Your task to perform on an android device: Empty the shopping cart on amazon.com. Image 0: 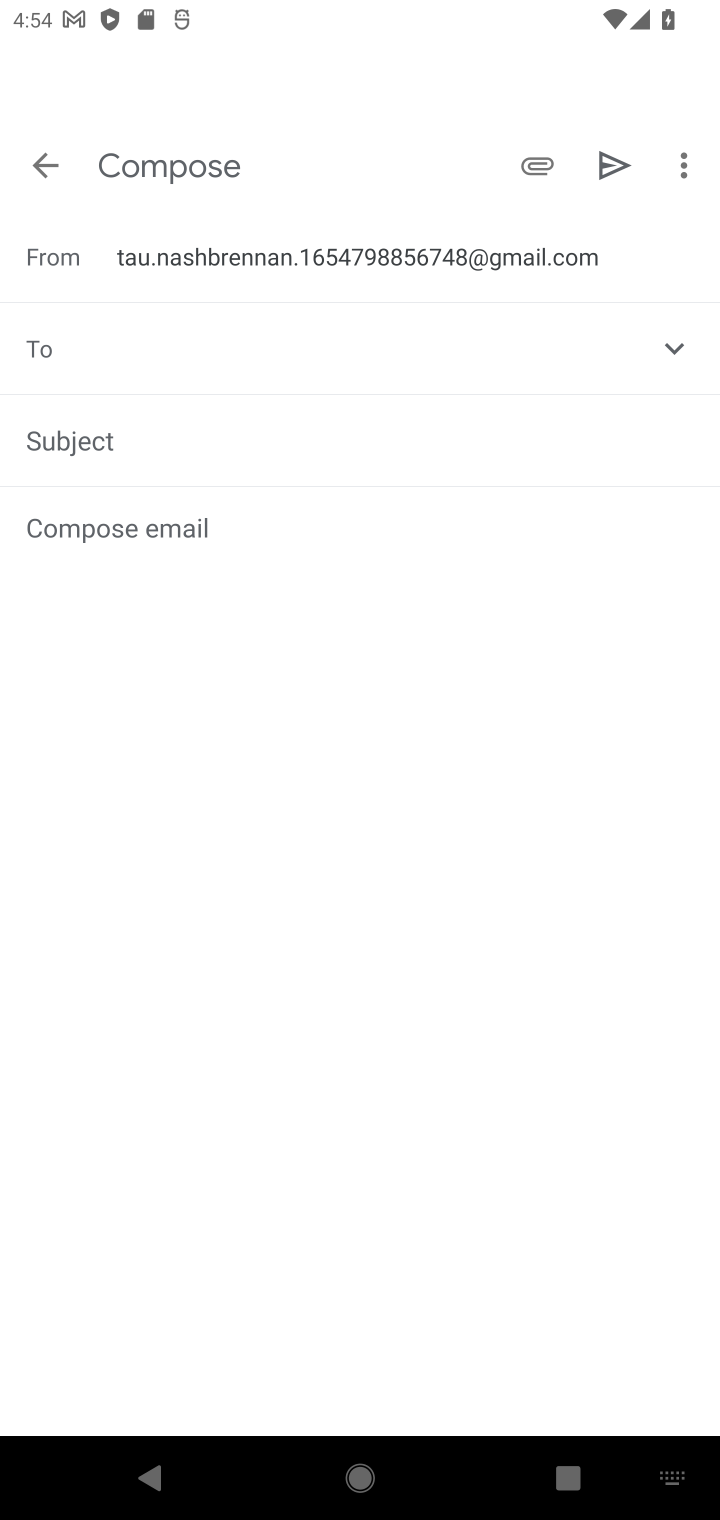
Step 0: press home button
Your task to perform on an android device: Empty the shopping cart on amazon.com. Image 1: 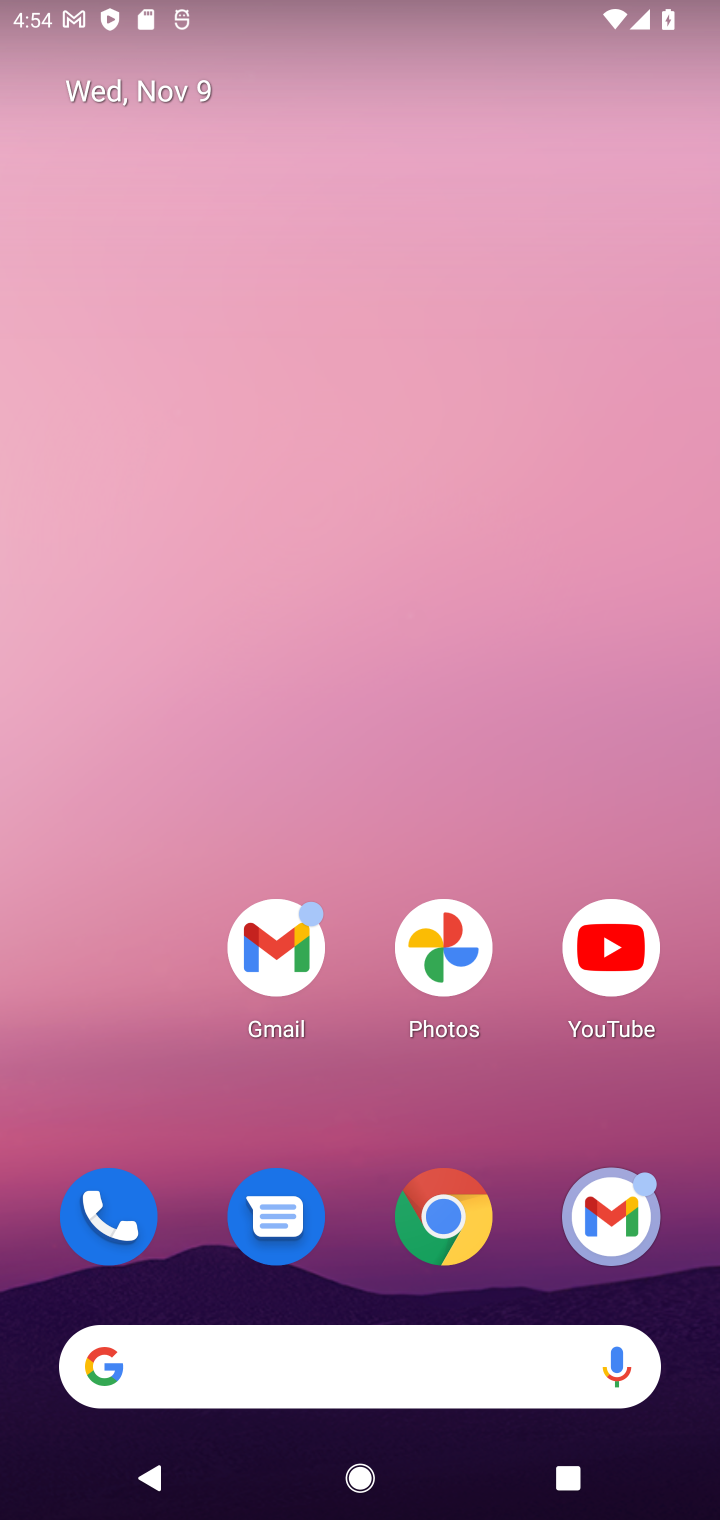
Step 1: drag from (369, 1128) to (358, 18)
Your task to perform on an android device: Empty the shopping cart on amazon.com. Image 2: 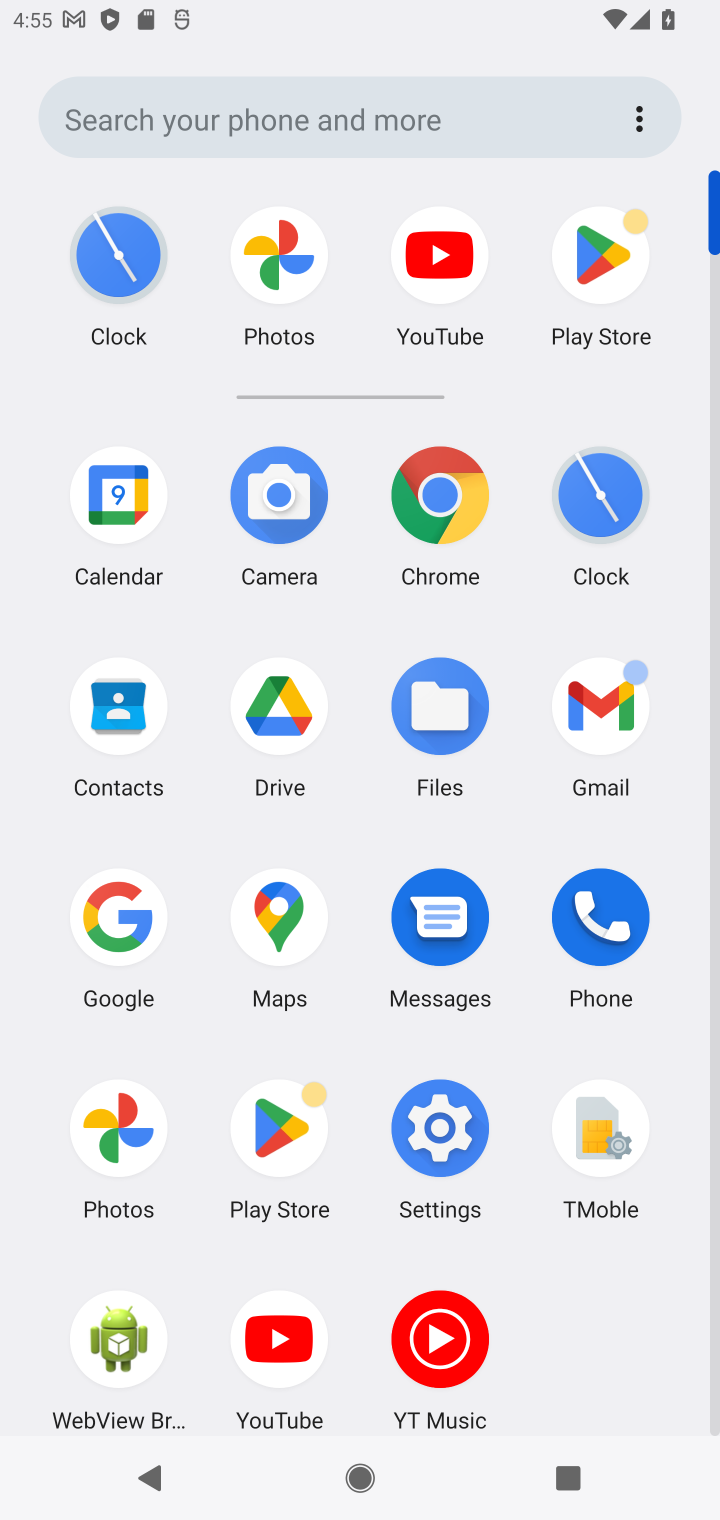
Step 2: click (444, 498)
Your task to perform on an android device: Empty the shopping cart on amazon.com. Image 3: 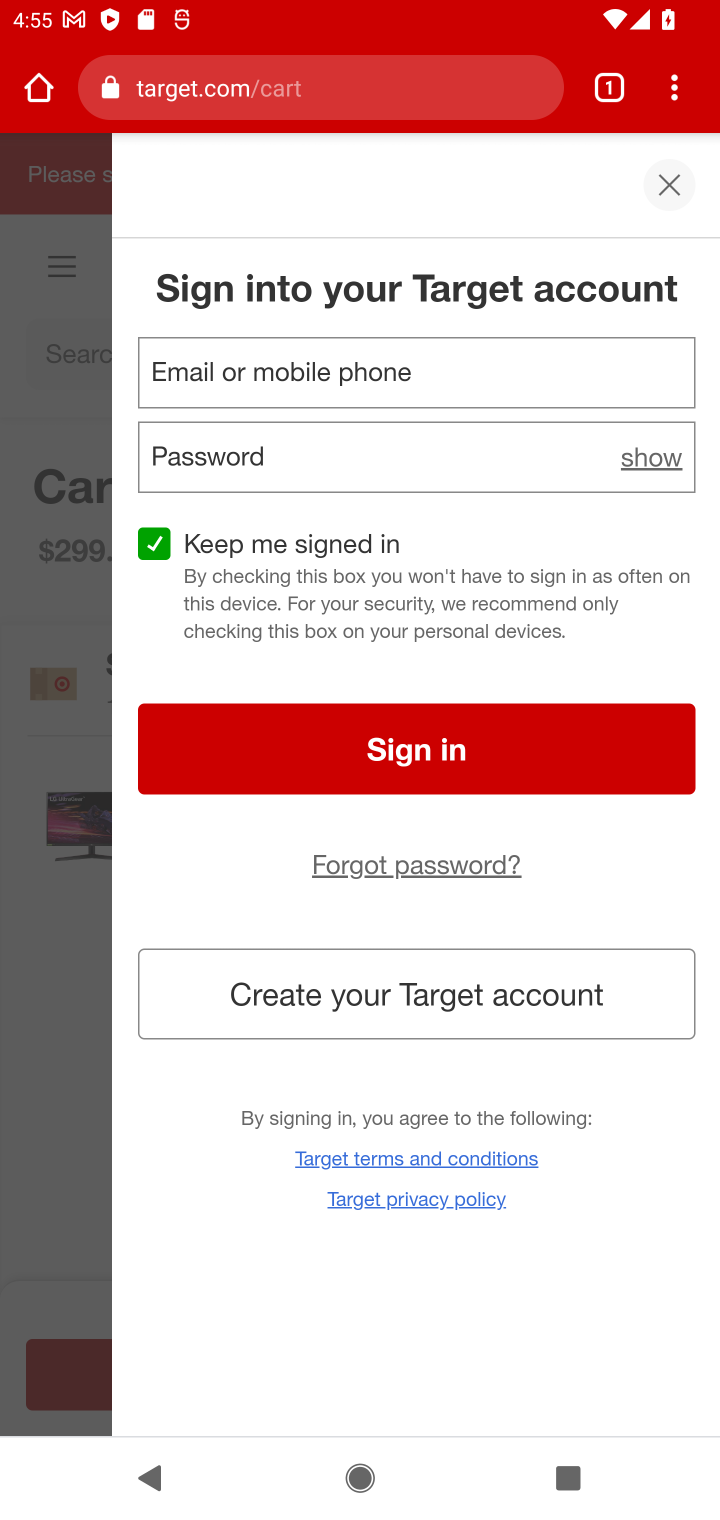
Step 3: click (409, 90)
Your task to perform on an android device: Empty the shopping cart on amazon.com. Image 4: 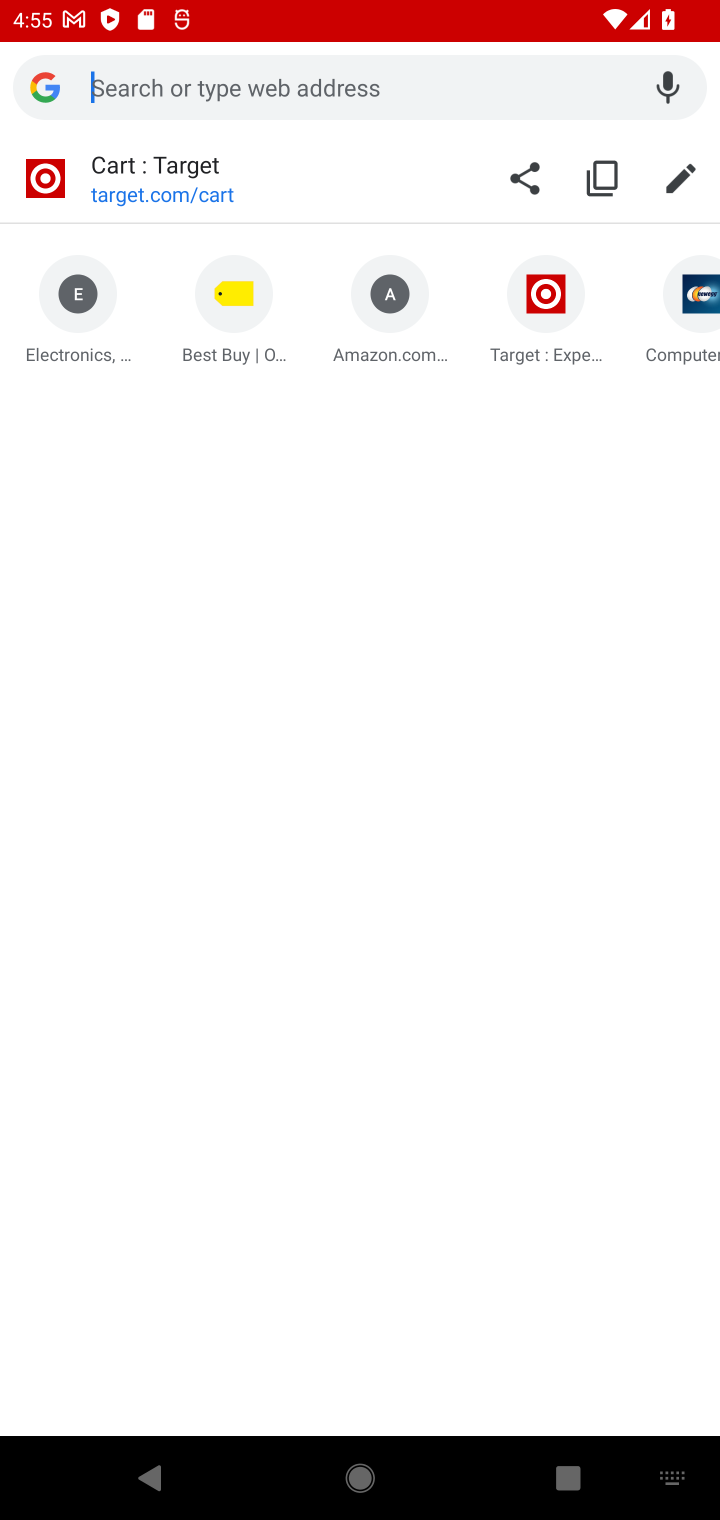
Step 4: type "amazon.com"
Your task to perform on an android device: Empty the shopping cart on amazon.com. Image 5: 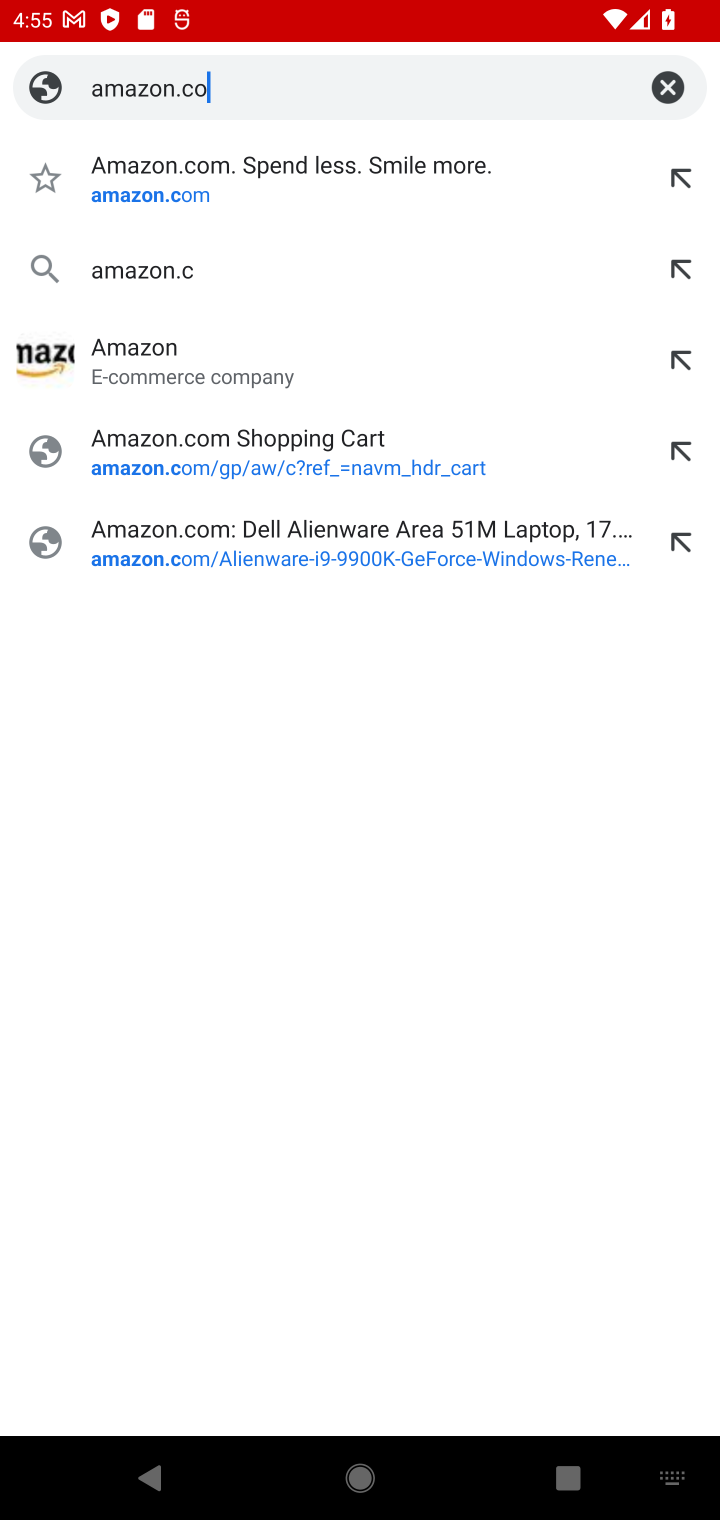
Step 5: press enter
Your task to perform on an android device: Empty the shopping cart on amazon.com. Image 6: 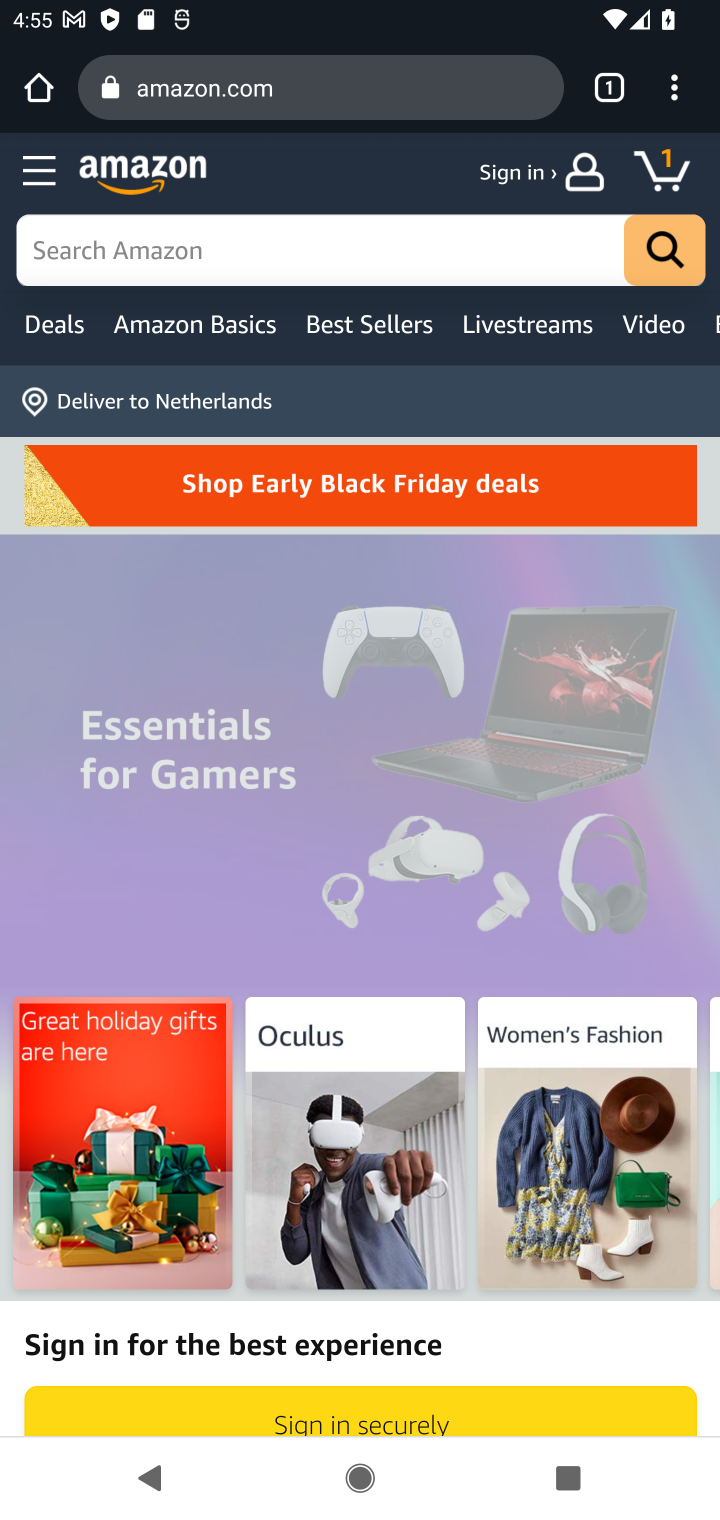
Step 6: click (685, 167)
Your task to perform on an android device: Empty the shopping cart on amazon.com. Image 7: 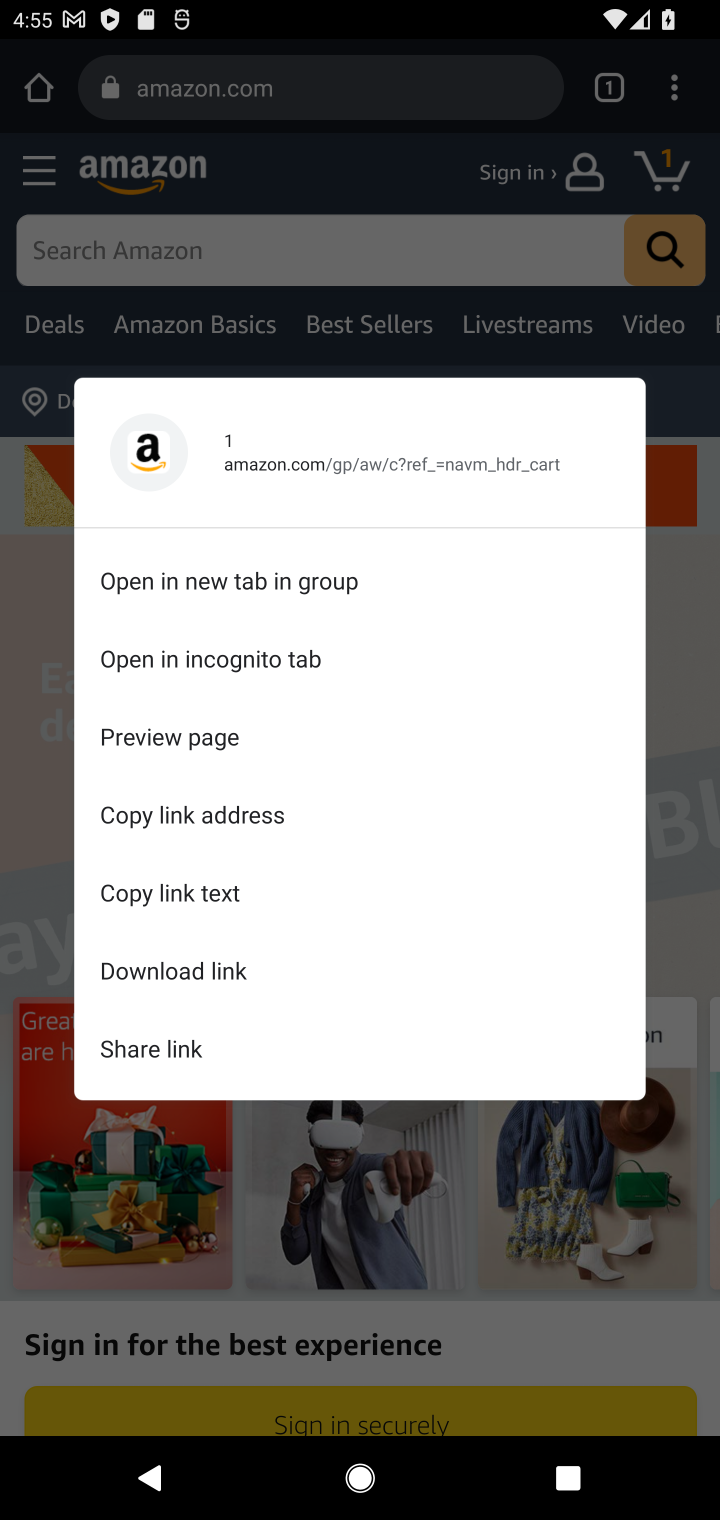
Step 7: click (660, 179)
Your task to perform on an android device: Empty the shopping cart on amazon.com. Image 8: 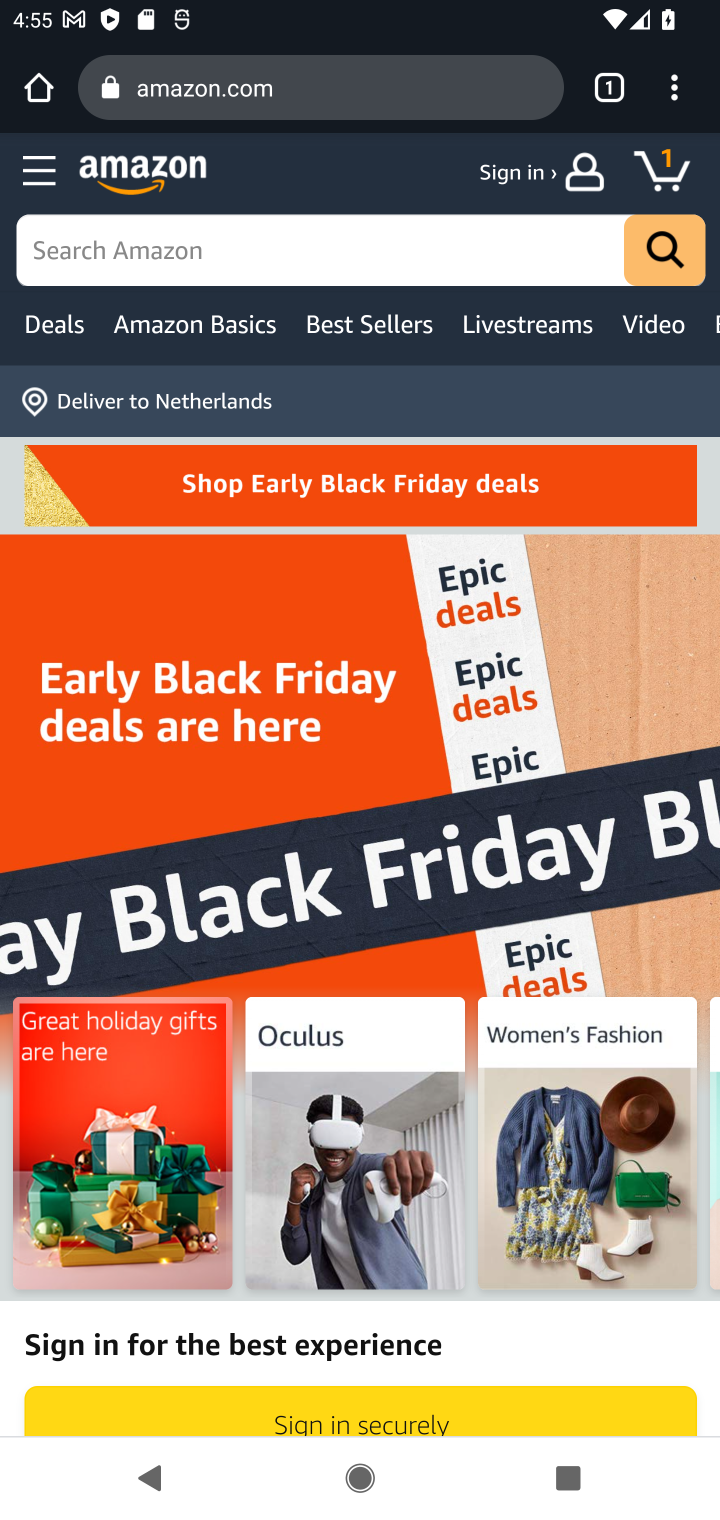
Step 8: click (660, 179)
Your task to perform on an android device: Empty the shopping cart on amazon.com. Image 9: 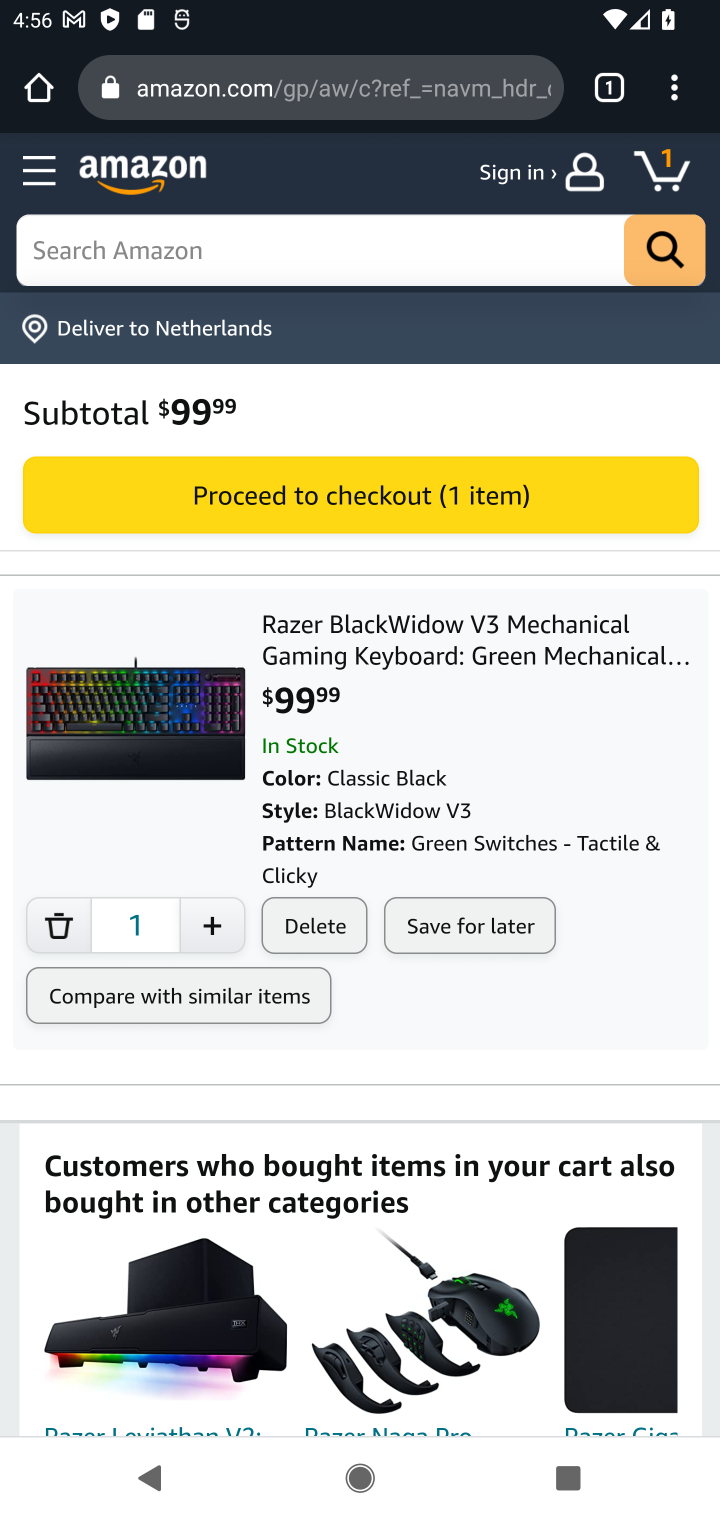
Step 9: click (49, 920)
Your task to perform on an android device: Empty the shopping cart on amazon.com. Image 10: 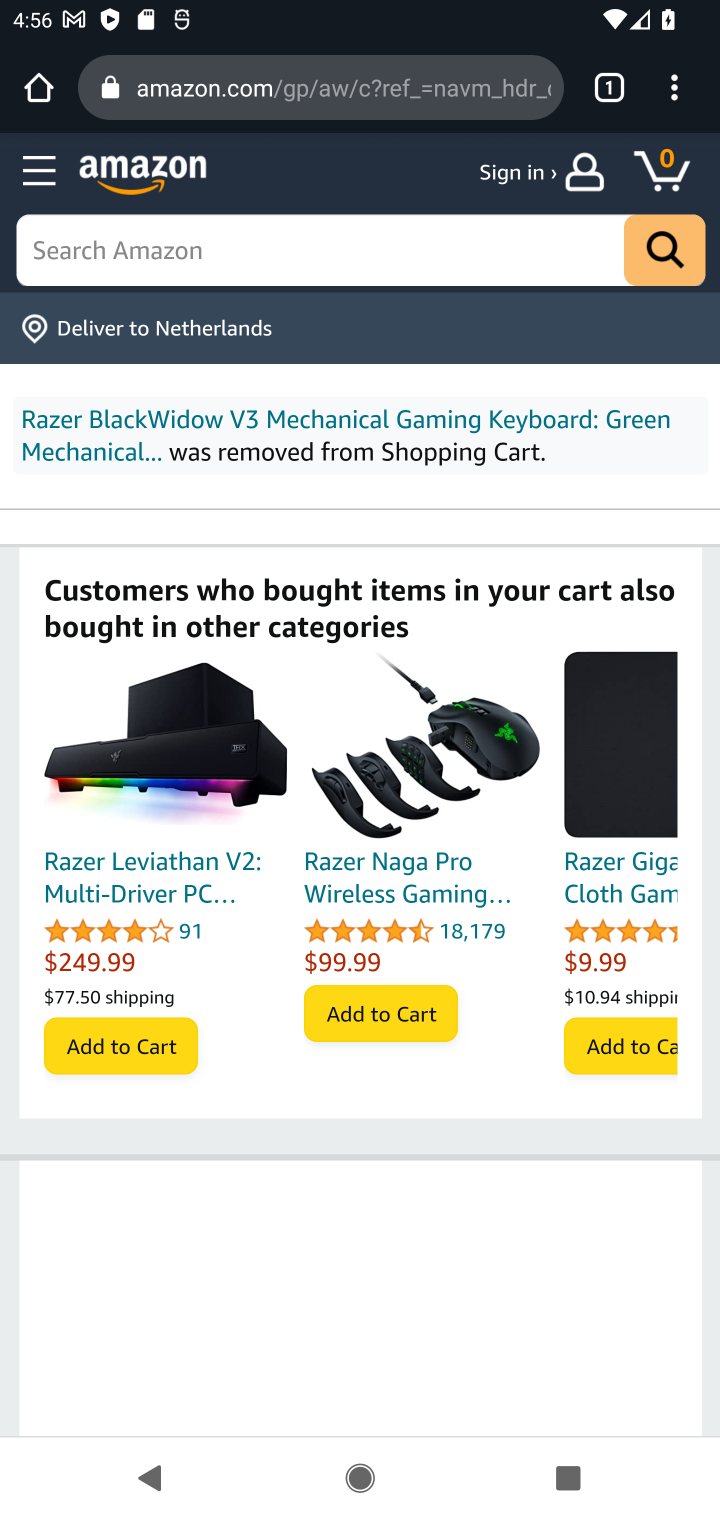
Step 10: task complete